Your task to perform on an android device: Go to Yahoo.com Image 0: 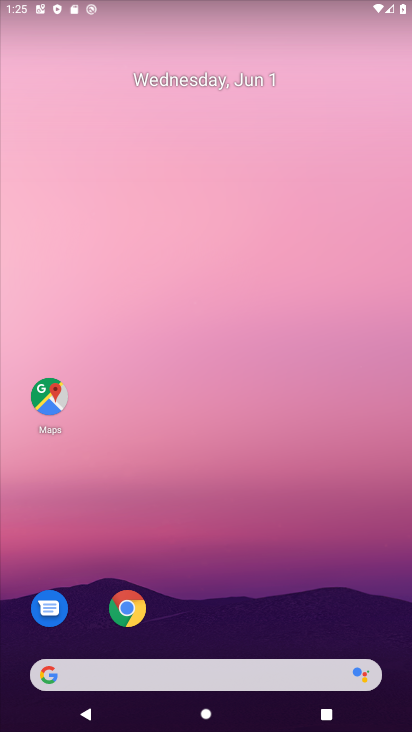
Step 0: click (130, 605)
Your task to perform on an android device: Go to Yahoo.com Image 1: 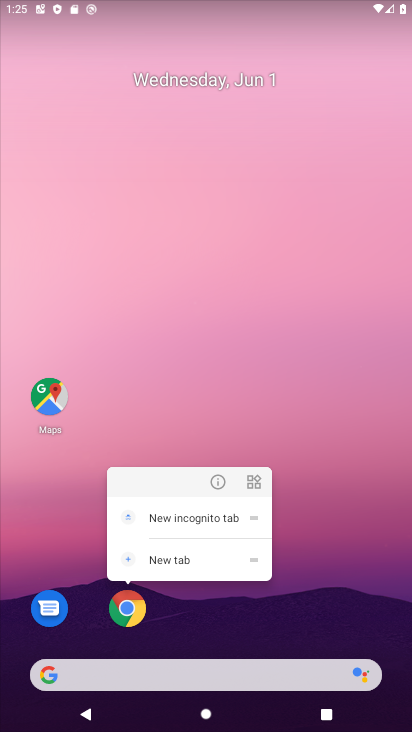
Step 1: click (122, 607)
Your task to perform on an android device: Go to Yahoo.com Image 2: 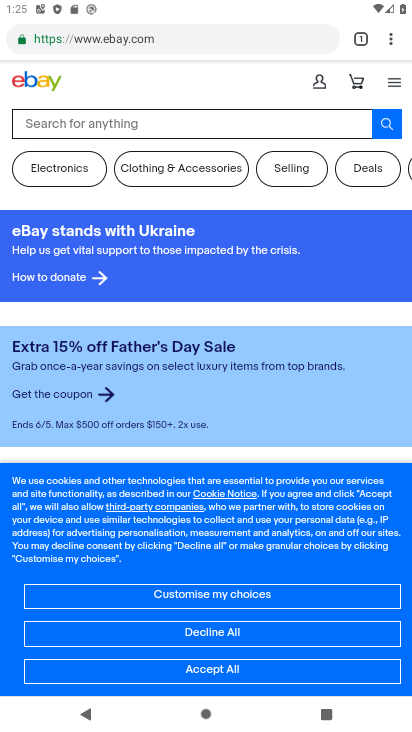
Step 2: press back button
Your task to perform on an android device: Go to Yahoo.com Image 3: 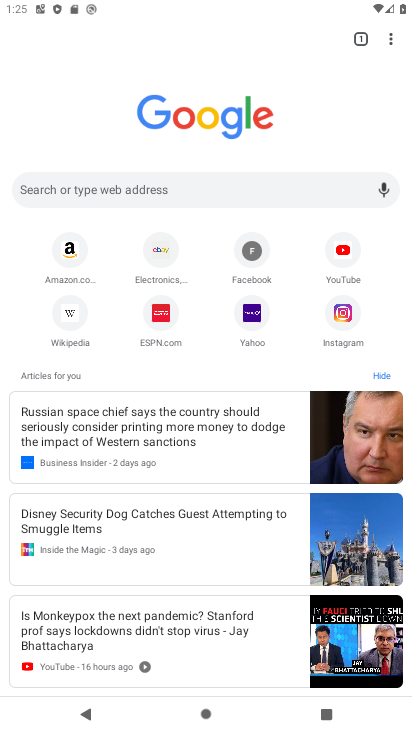
Step 3: click (251, 316)
Your task to perform on an android device: Go to Yahoo.com Image 4: 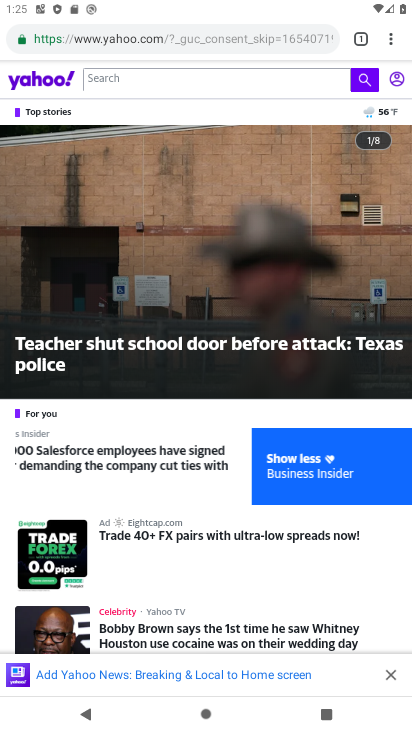
Step 4: task complete